Your task to perform on an android device: Go to display settings Image 0: 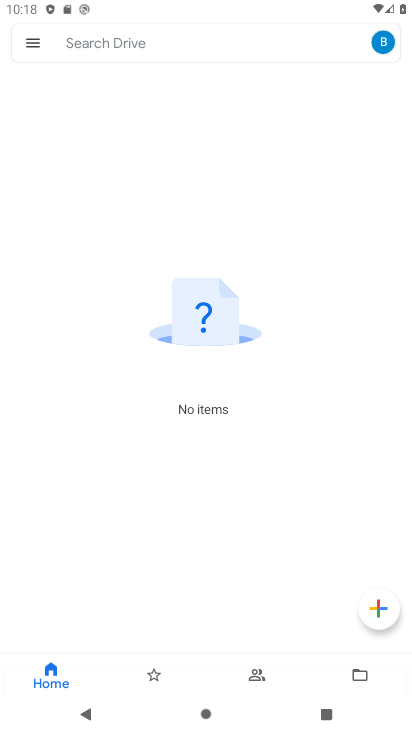
Step 0: press home button
Your task to perform on an android device: Go to display settings Image 1: 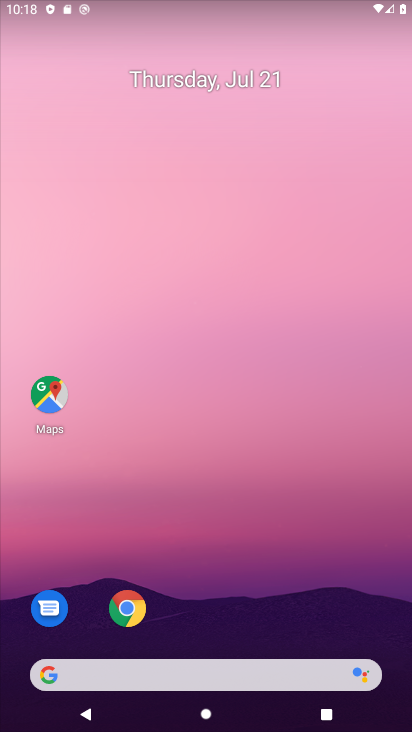
Step 1: drag from (206, 495) to (227, 1)
Your task to perform on an android device: Go to display settings Image 2: 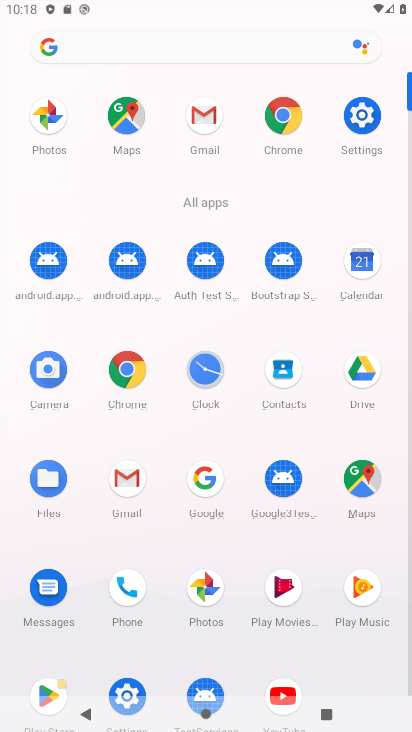
Step 2: drag from (137, 663) to (140, 421)
Your task to perform on an android device: Go to display settings Image 3: 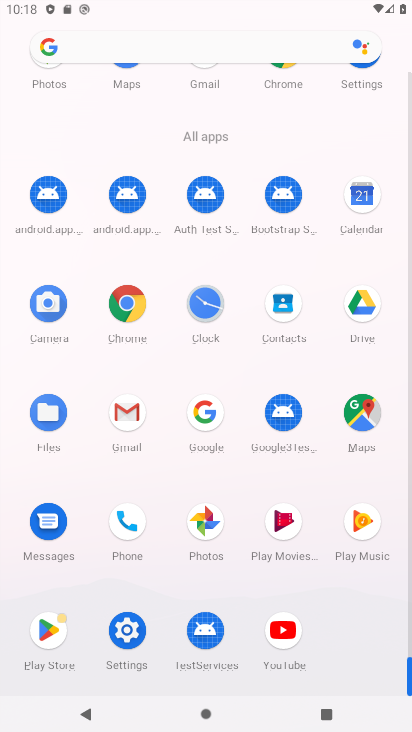
Step 3: click (125, 629)
Your task to perform on an android device: Go to display settings Image 4: 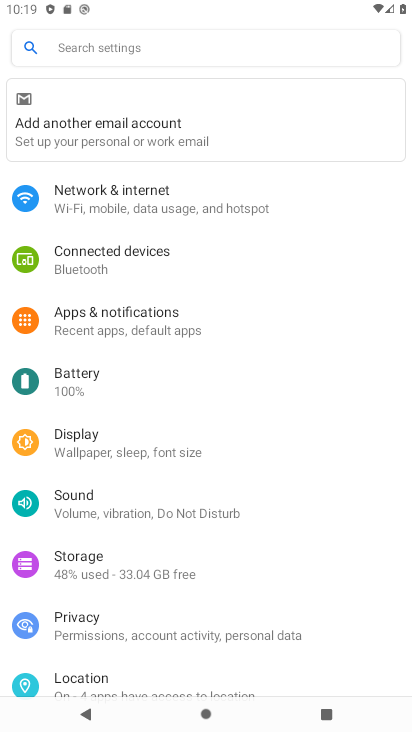
Step 4: click (116, 452)
Your task to perform on an android device: Go to display settings Image 5: 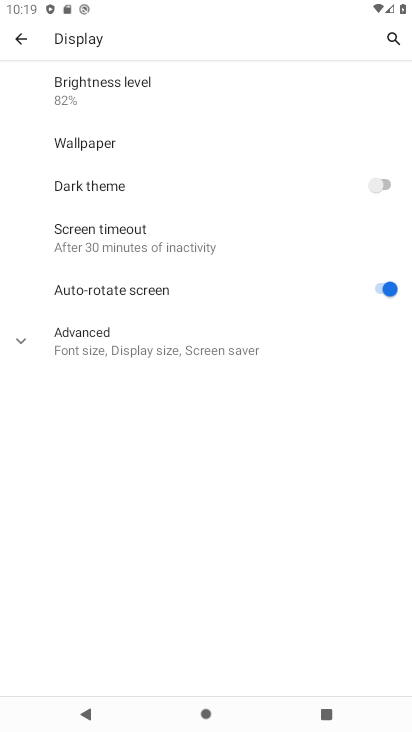
Step 5: task complete